Your task to perform on an android device: Go to network settings Image 0: 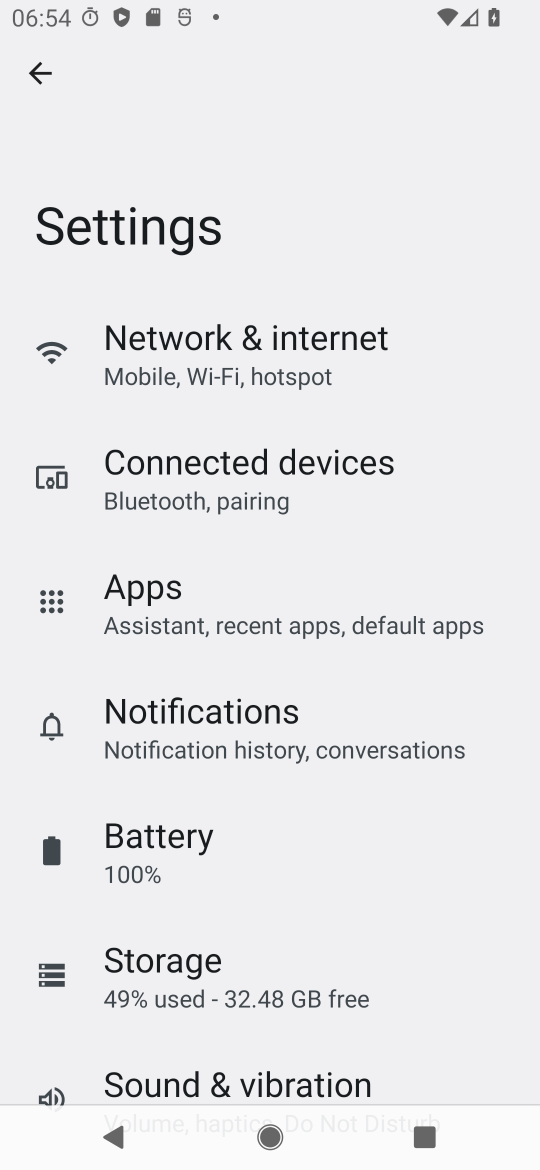
Step 0: click (322, 356)
Your task to perform on an android device: Go to network settings Image 1: 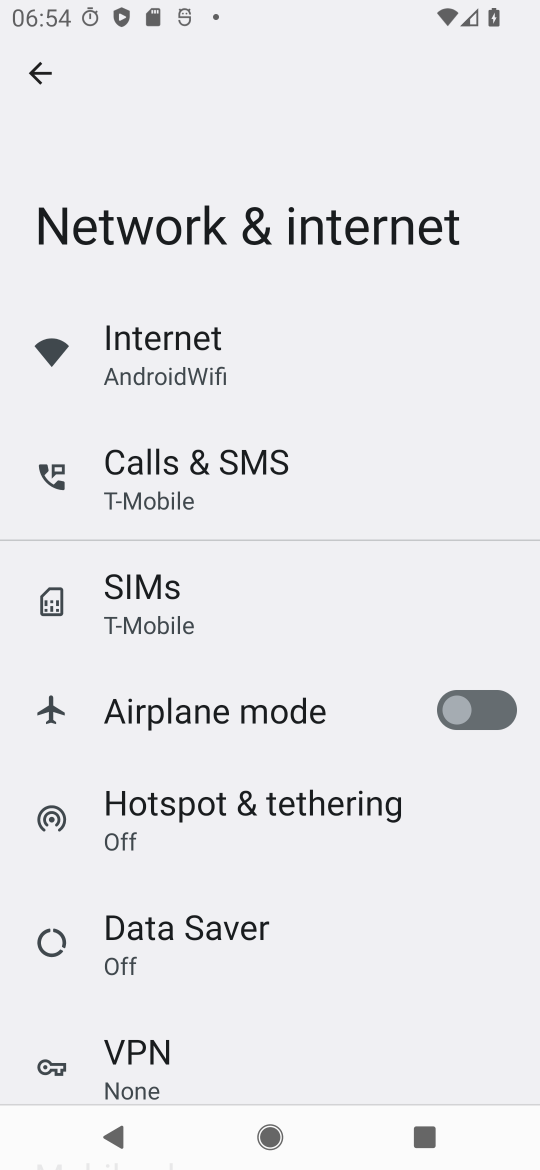
Step 1: click (222, 365)
Your task to perform on an android device: Go to network settings Image 2: 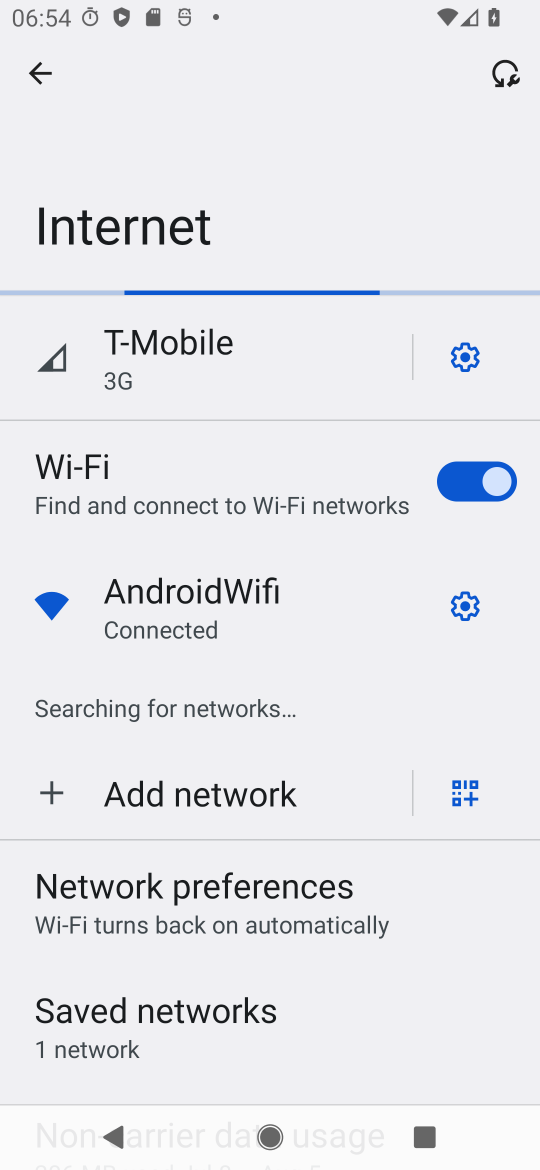
Step 2: task complete